Your task to perform on an android device: Play the last video I watched on Youtube Image 0: 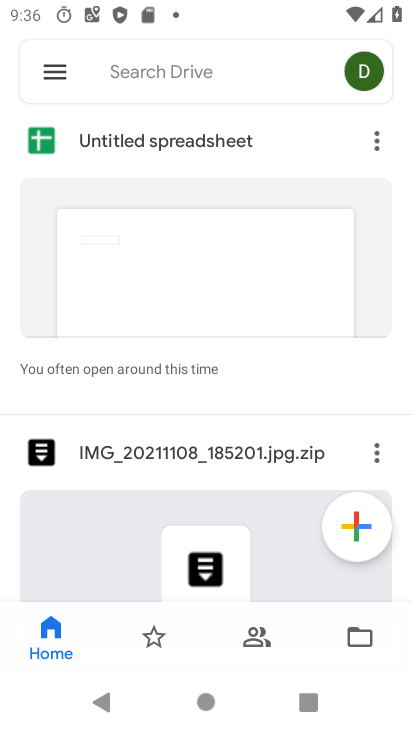
Step 0: press home button
Your task to perform on an android device: Play the last video I watched on Youtube Image 1: 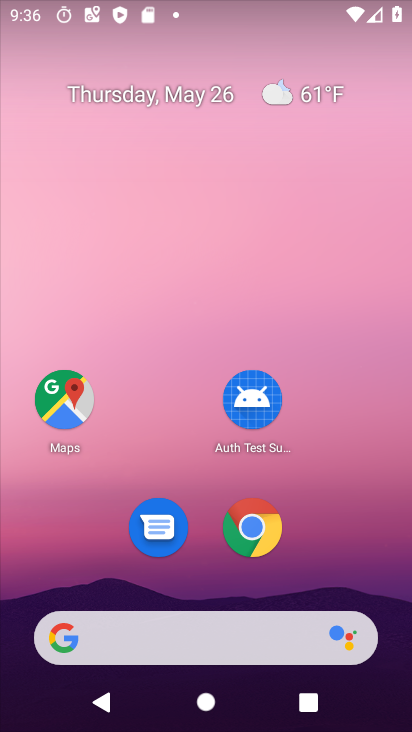
Step 1: drag from (371, 526) to (380, 99)
Your task to perform on an android device: Play the last video I watched on Youtube Image 2: 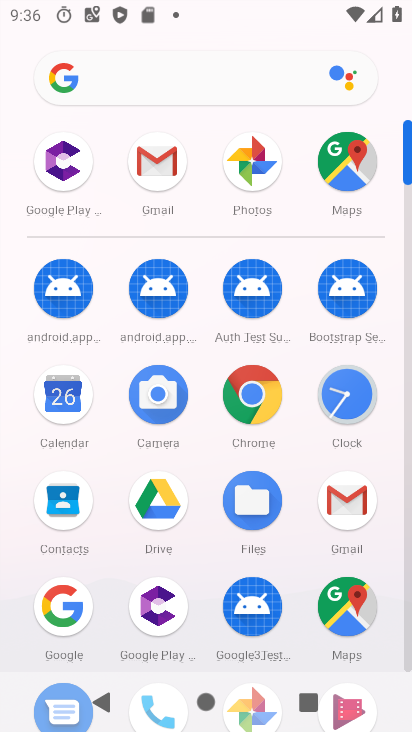
Step 2: drag from (399, 632) to (410, 266)
Your task to perform on an android device: Play the last video I watched on Youtube Image 3: 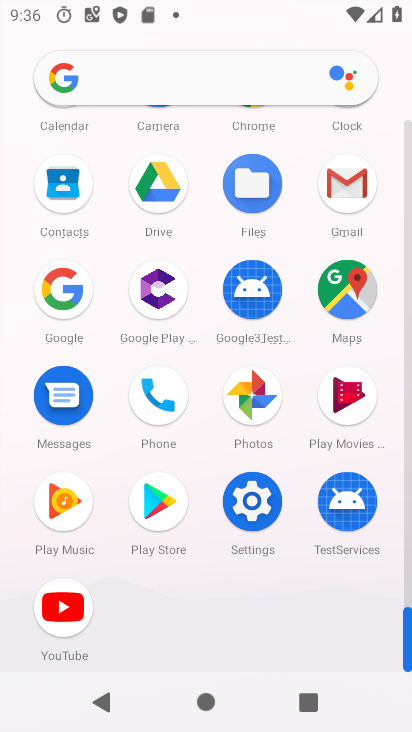
Step 3: click (59, 614)
Your task to perform on an android device: Play the last video I watched on Youtube Image 4: 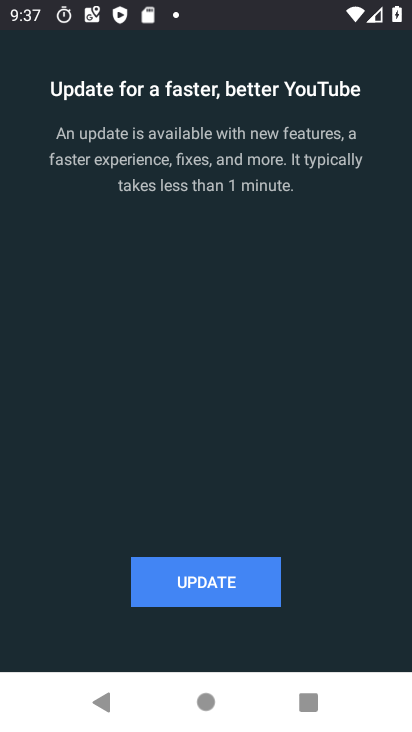
Step 4: click (199, 603)
Your task to perform on an android device: Play the last video I watched on Youtube Image 5: 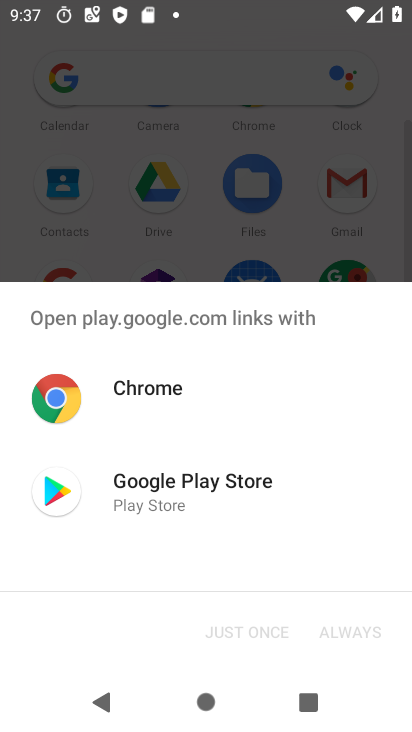
Step 5: click (122, 489)
Your task to perform on an android device: Play the last video I watched on Youtube Image 6: 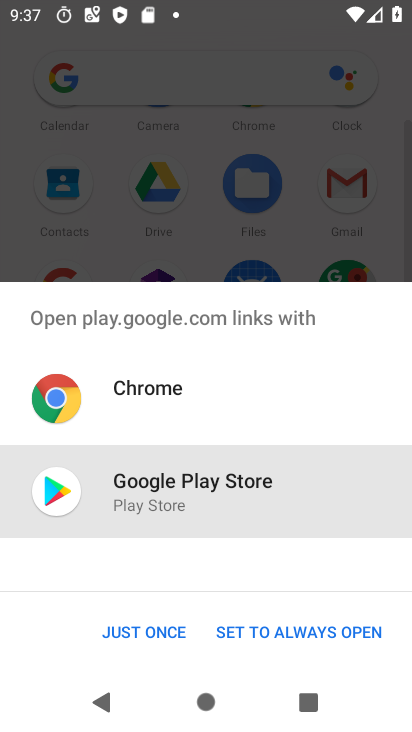
Step 6: click (137, 636)
Your task to perform on an android device: Play the last video I watched on Youtube Image 7: 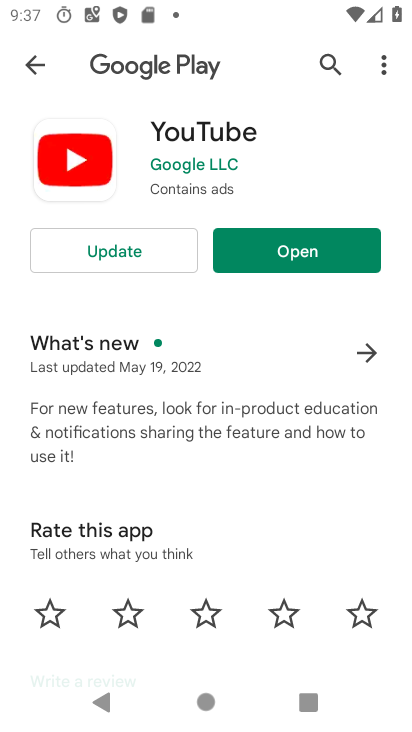
Step 7: click (94, 259)
Your task to perform on an android device: Play the last video I watched on Youtube Image 8: 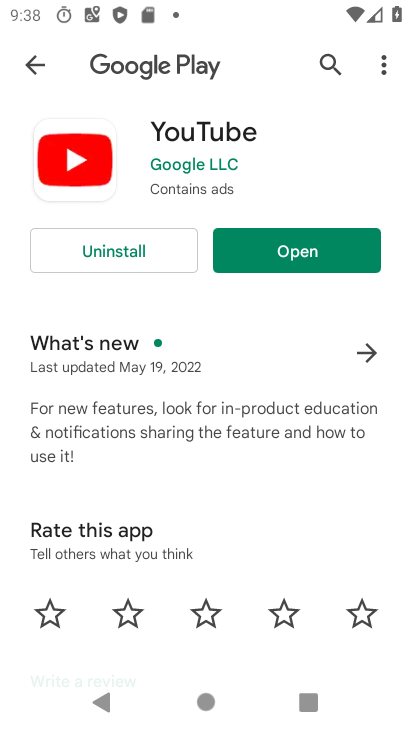
Step 8: click (288, 247)
Your task to perform on an android device: Play the last video I watched on Youtube Image 9: 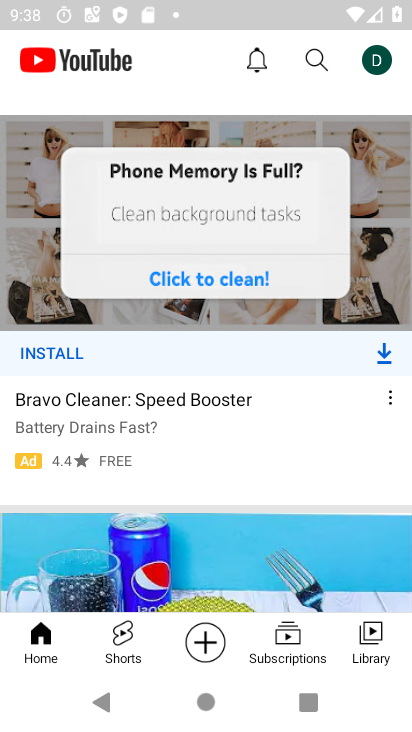
Step 9: click (378, 653)
Your task to perform on an android device: Play the last video I watched on Youtube Image 10: 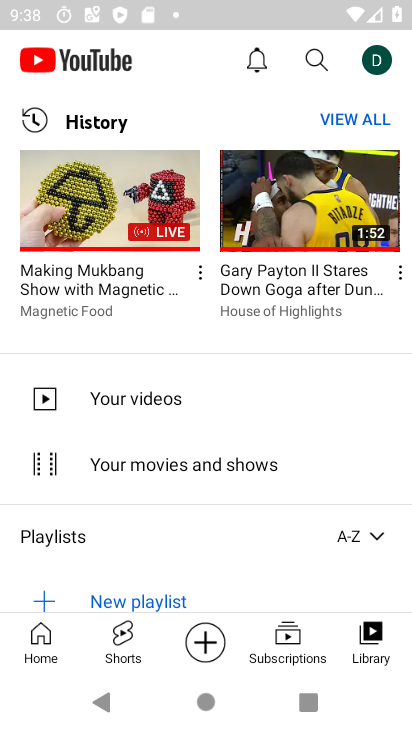
Step 10: click (117, 223)
Your task to perform on an android device: Play the last video I watched on Youtube Image 11: 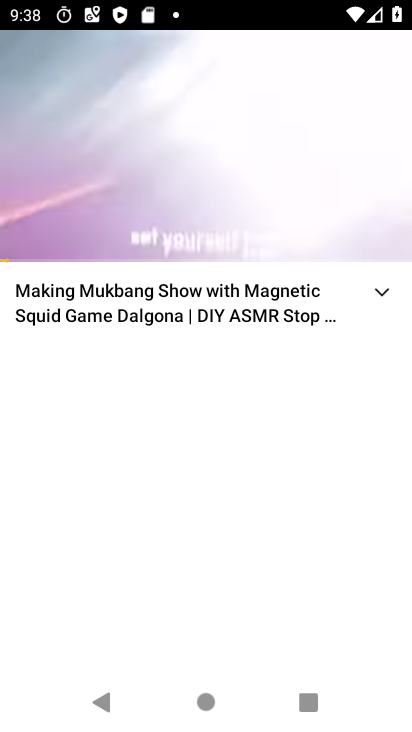
Step 11: task complete